Your task to perform on an android device: Go to Maps Image 0: 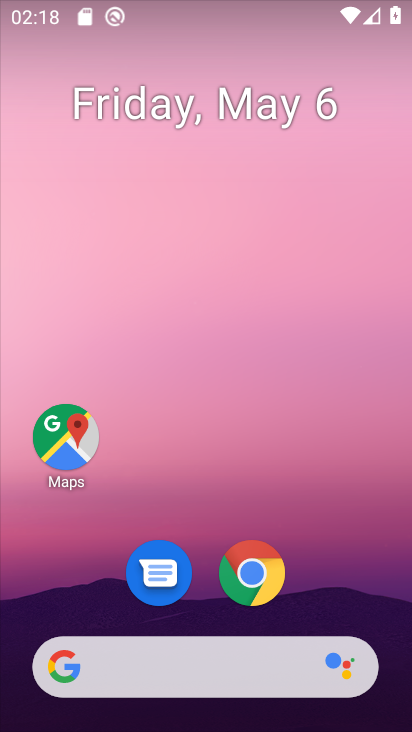
Step 0: drag from (320, 607) to (325, 298)
Your task to perform on an android device: Go to Maps Image 1: 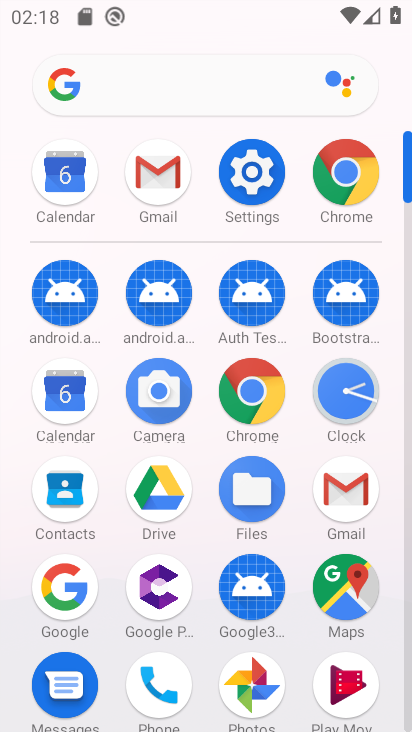
Step 1: click (349, 581)
Your task to perform on an android device: Go to Maps Image 2: 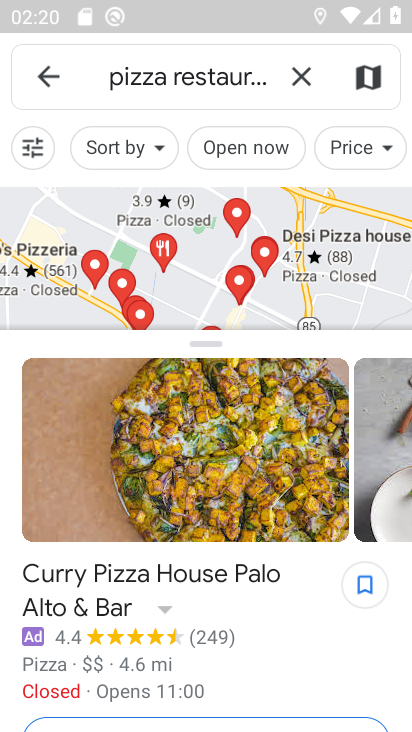
Step 2: task complete